Your task to perform on an android device: find which apps use the phone's location Image 0: 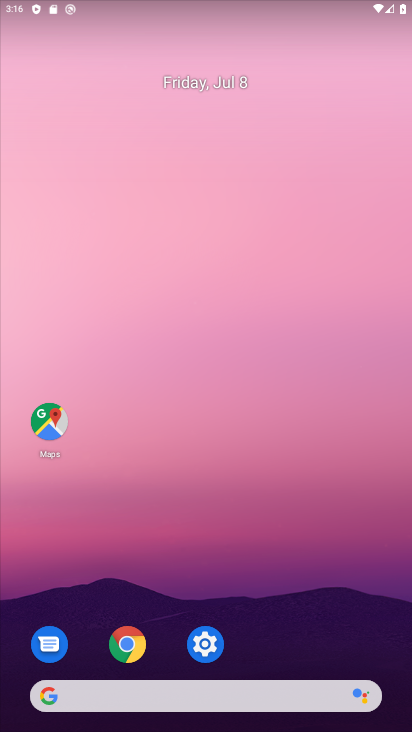
Step 0: drag from (53, 648) to (259, 9)
Your task to perform on an android device: find which apps use the phone's location Image 1: 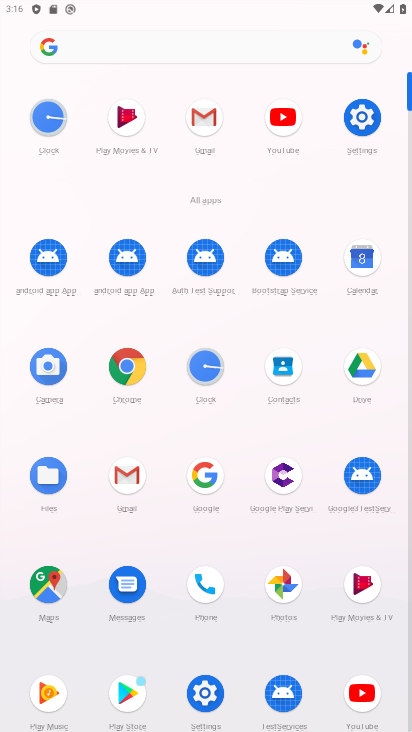
Step 1: click (216, 681)
Your task to perform on an android device: find which apps use the phone's location Image 2: 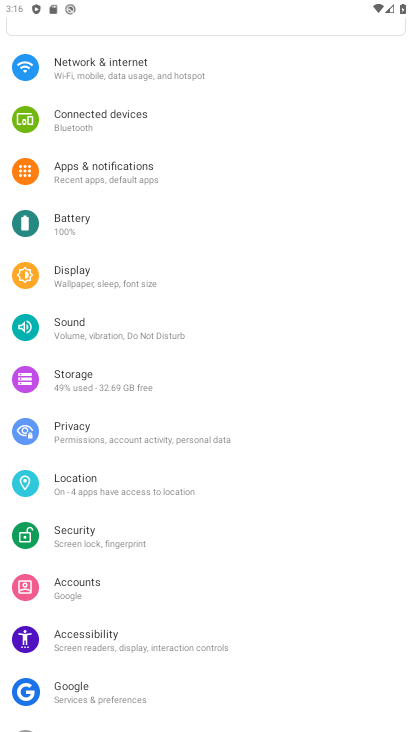
Step 2: click (92, 472)
Your task to perform on an android device: find which apps use the phone's location Image 3: 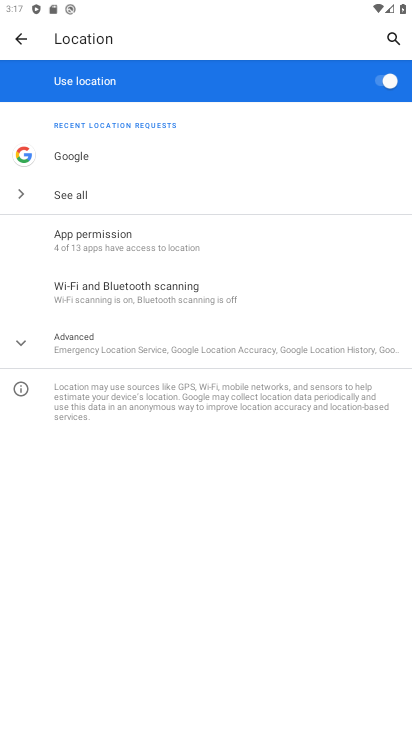
Step 3: click (85, 329)
Your task to perform on an android device: find which apps use the phone's location Image 4: 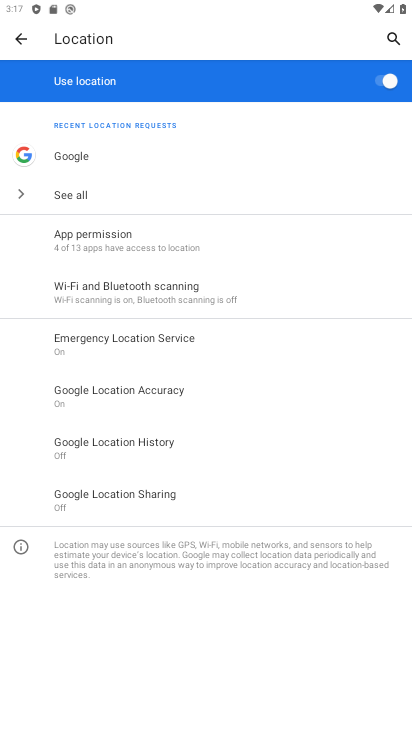
Step 4: click (82, 197)
Your task to perform on an android device: find which apps use the phone's location Image 5: 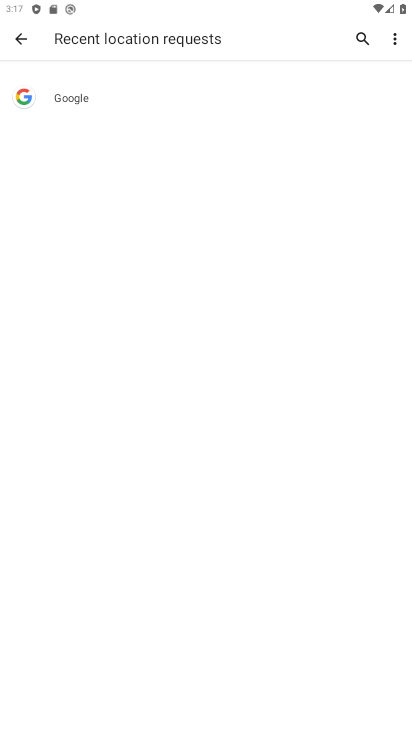
Step 5: task complete